Your task to perform on an android device: Go to internet settings Image 0: 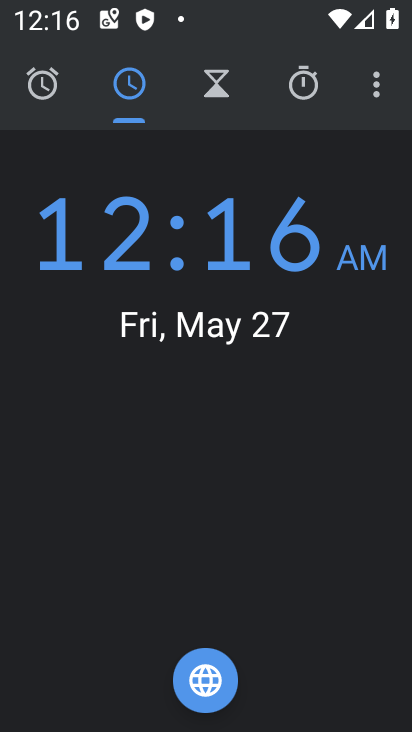
Step 0: press home button
Your task to perform on an android device: Go to internet settings Image 1: 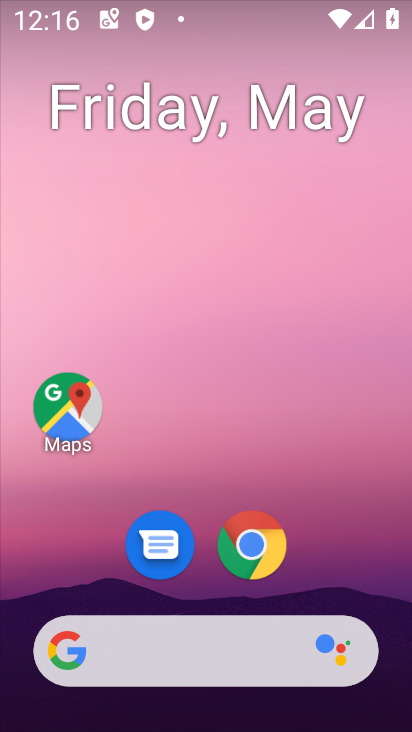
Step 1: drag from (314, 579) to (328, 264)
Your task to perform on an android device: Go to internet settings Image 2: 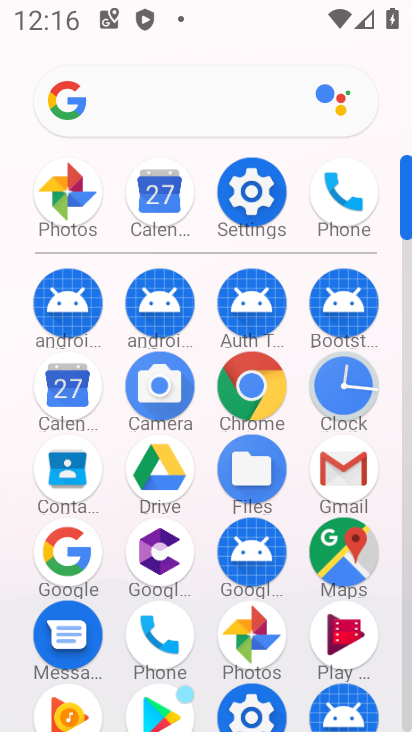
Step 2: click (249, 195)
Your task to perform on an android device: Go to internet settings Image 3: 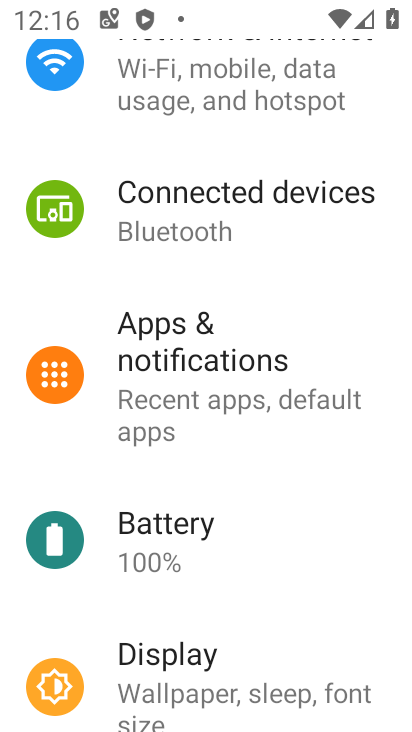
Step 3: drag from (259, 143) to (250, 557)
Your task to perform on an android device: Go to internet settings Image 4: 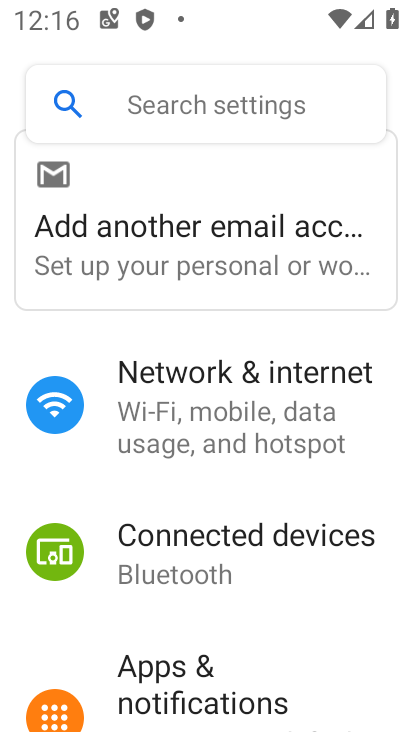
Step 4: click (253, 431)
Your task to perform on an android device: Go to internet settings Image 5: 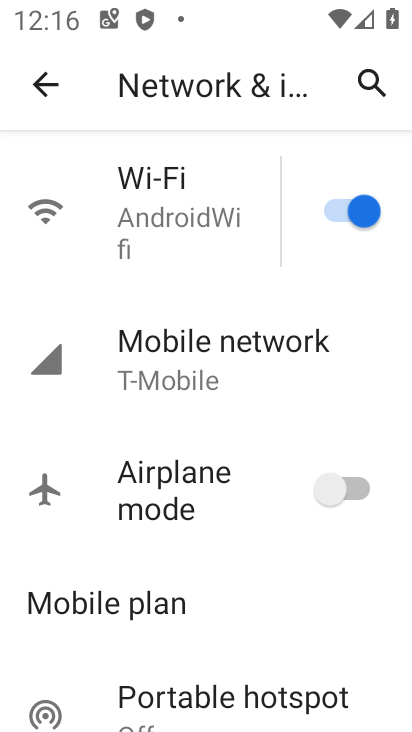
Step 5: task complete